Your task to perform on an android device: show emergency info Image 0: 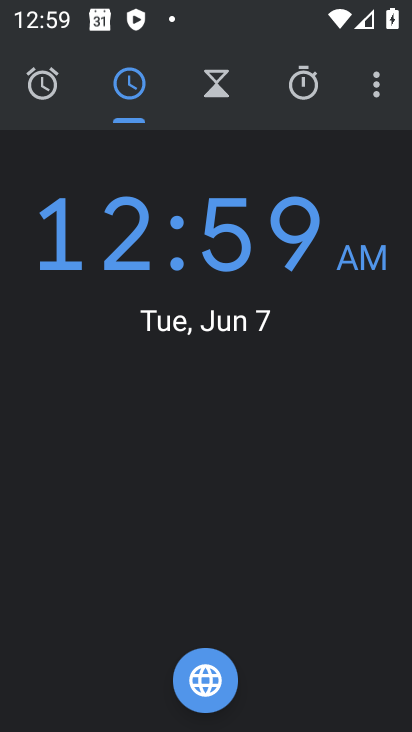
Step 0: press home button
Your task to perform on an android device: show emergency info Image 1: 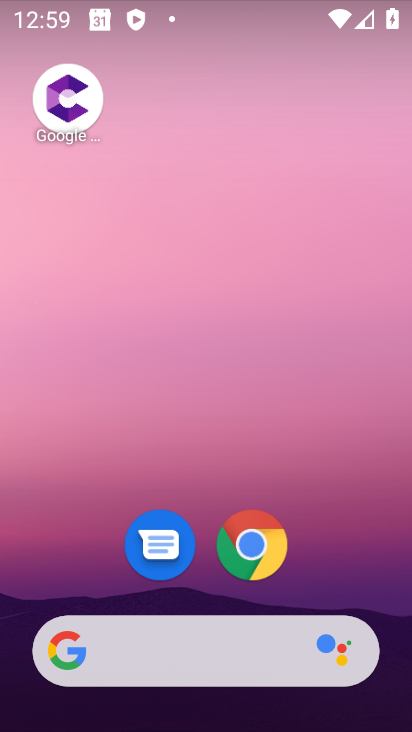
Step 1: drag from (345, 573) to (359, 239)
Your task to perform on an android device: show emergency info Image 2: 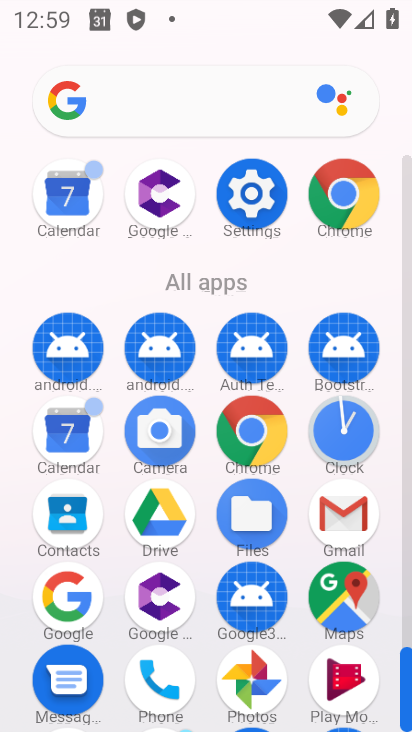
Step 2: click (248, 201)
Your task to perform on an android device: show emergency info Image 3: 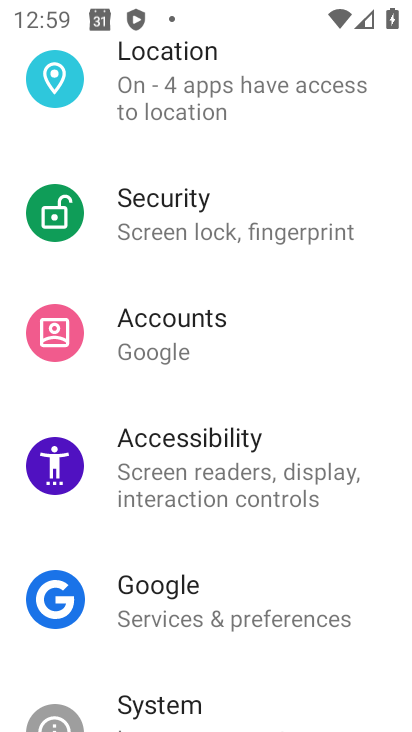
Step 3: drag from (220, 708) to (332, 417)
Your task to perform on an android device: show emergency info Image 4: 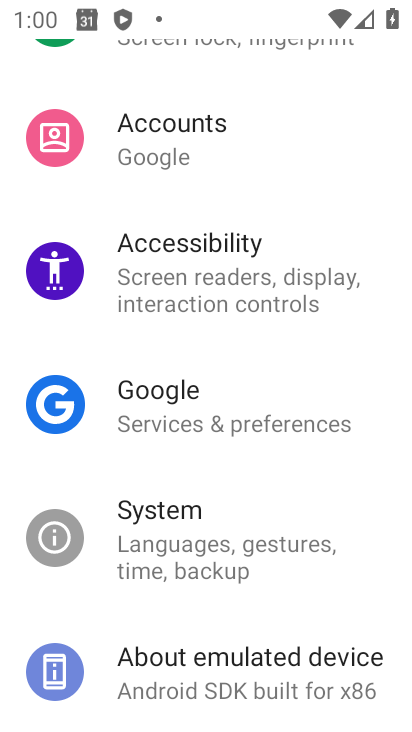
Step 4: drag from (253, 595) to (317, 412)
Your task to perform on an android device: show emergency info Image 5: 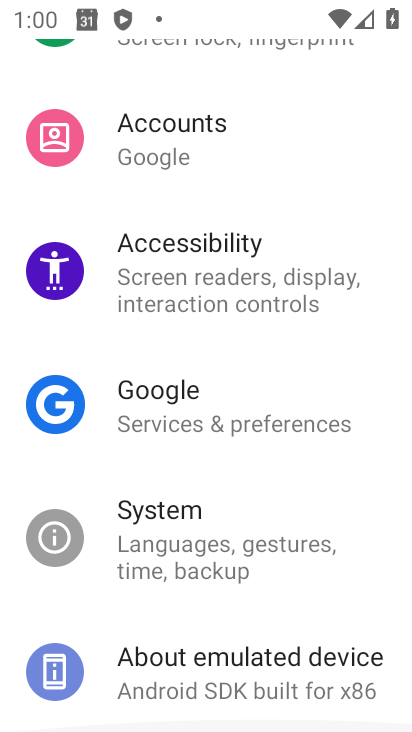
Step 5: click (274, 679)
Your task to perform on an android device: show emergency info Image 6: 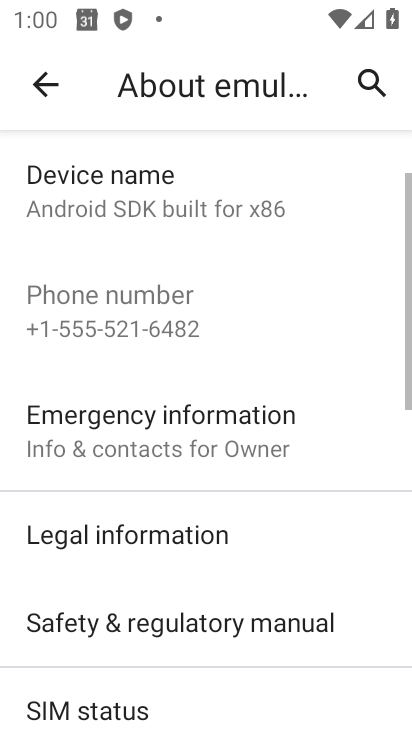
Step 6: click (285, 439)
Your task to perform on an android device: show emergency info Image 7: 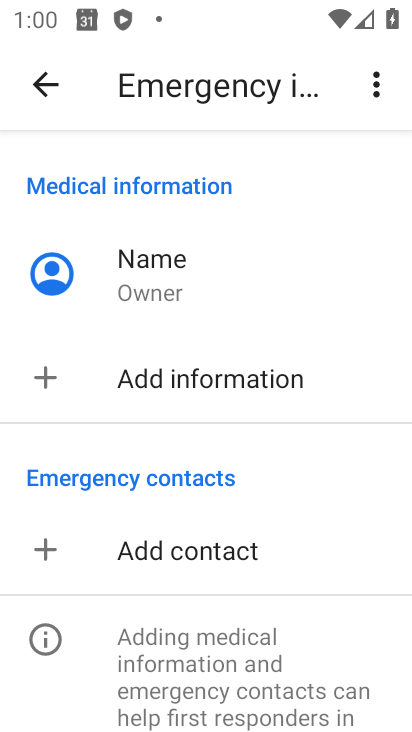
Step 7: task complete